Your task to perform on an android device: Add rayovac triple a to the cart on target, then select checkout. Image 0: 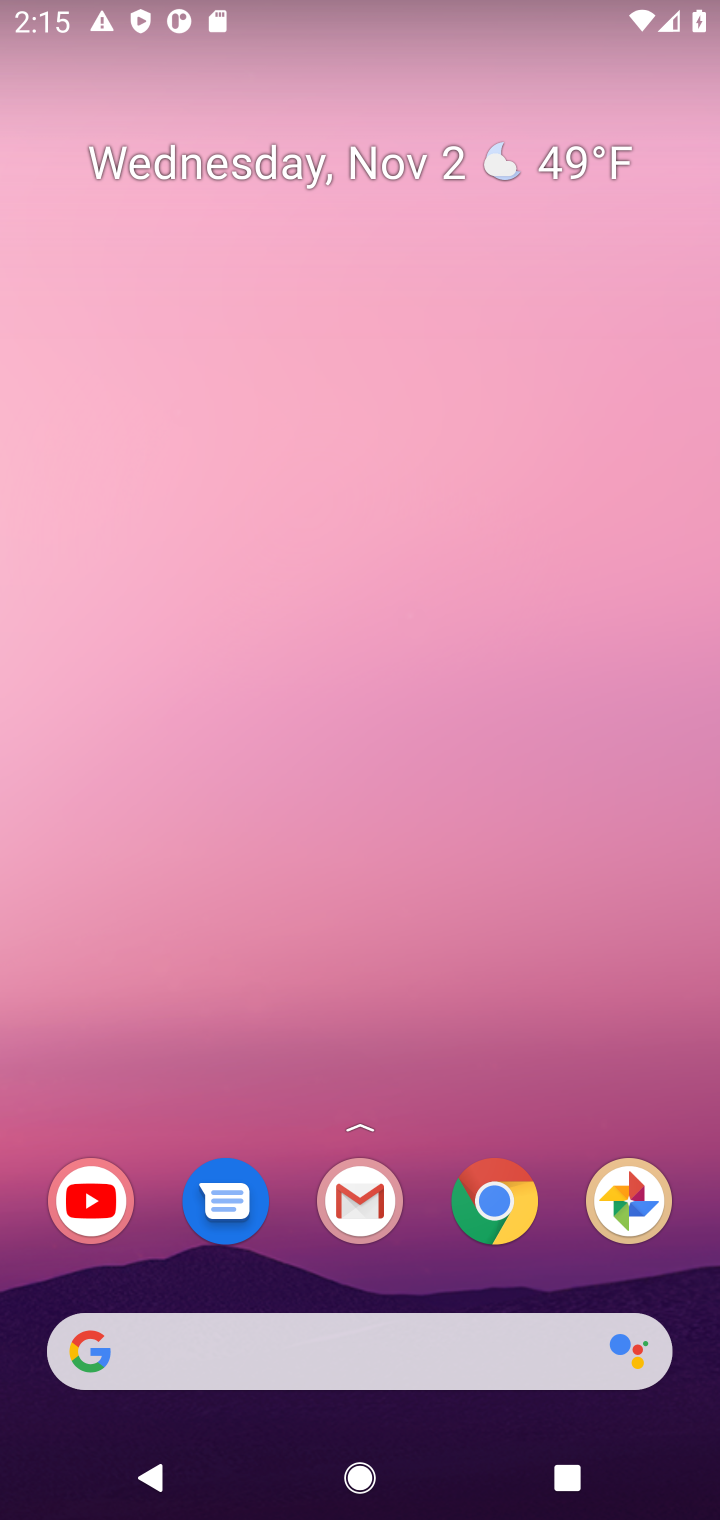
Step 0: click (504, 1185)
Your task to perform on an android device: Add rayovac triple a to the cart on target, then select checkout. Image 1: 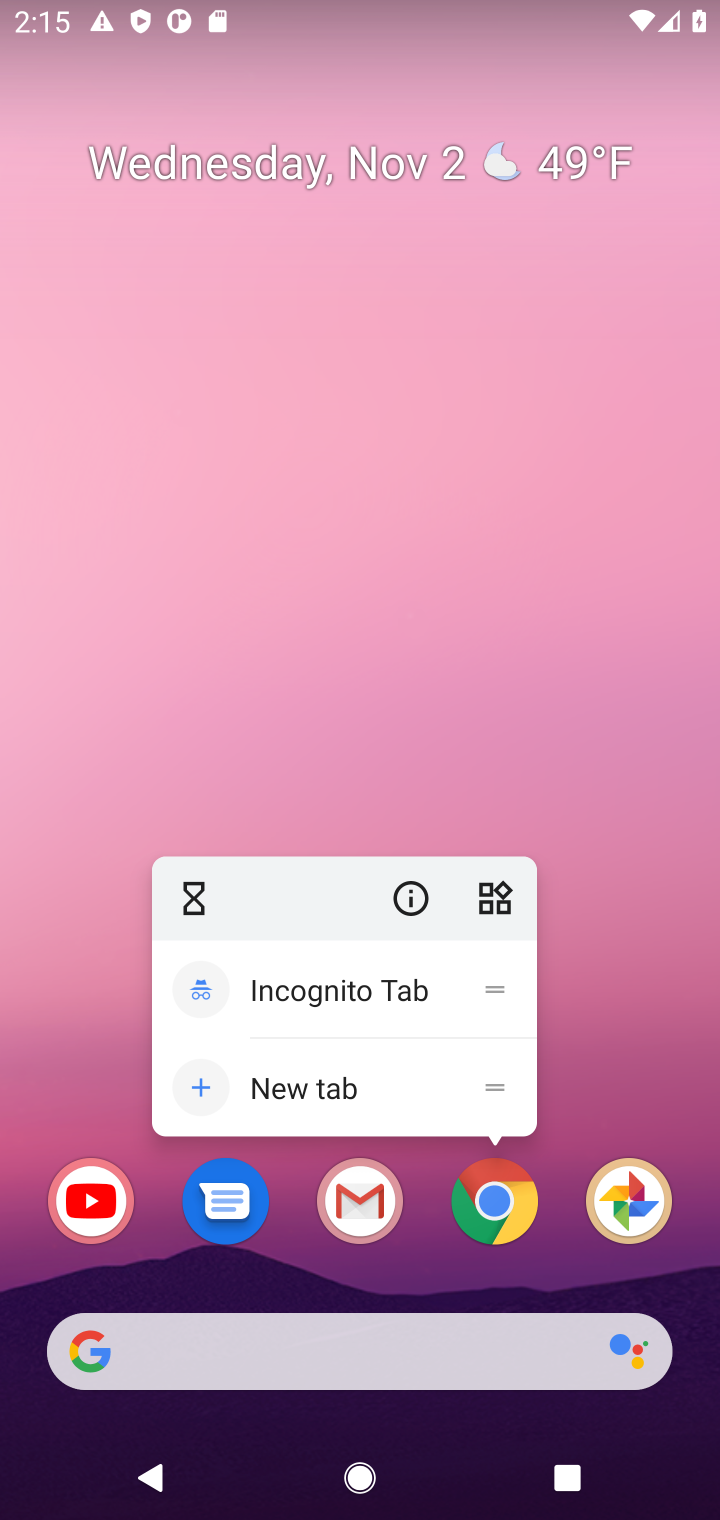
Step 1: click (496, 1205)
Your task to perform on an android device: Add rayovac triple a to the cart on target, then select checkout. Image 2: 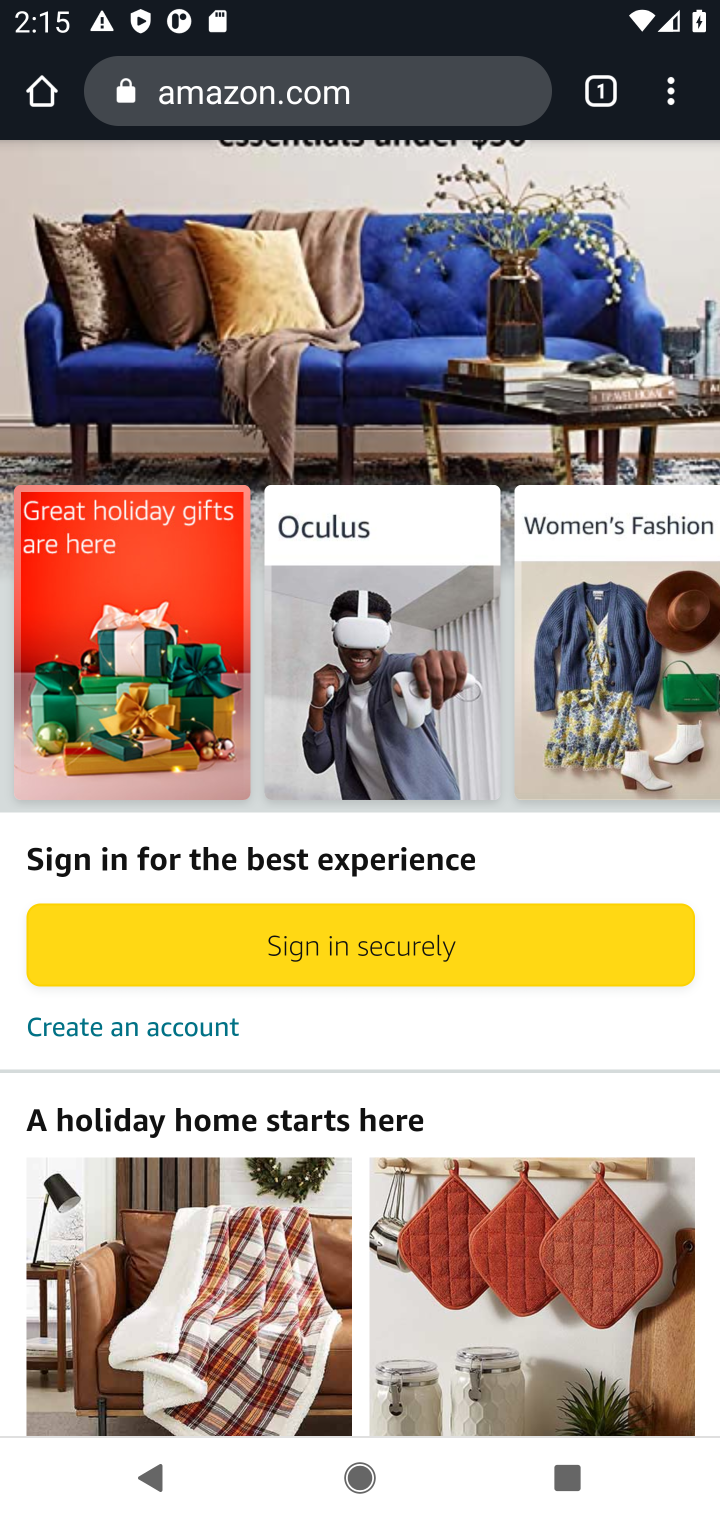
Step 2: click (436, 113)
Your task to perform on an android device: Add rayovac triple a to the cart on target, then select checkout. Image 3: 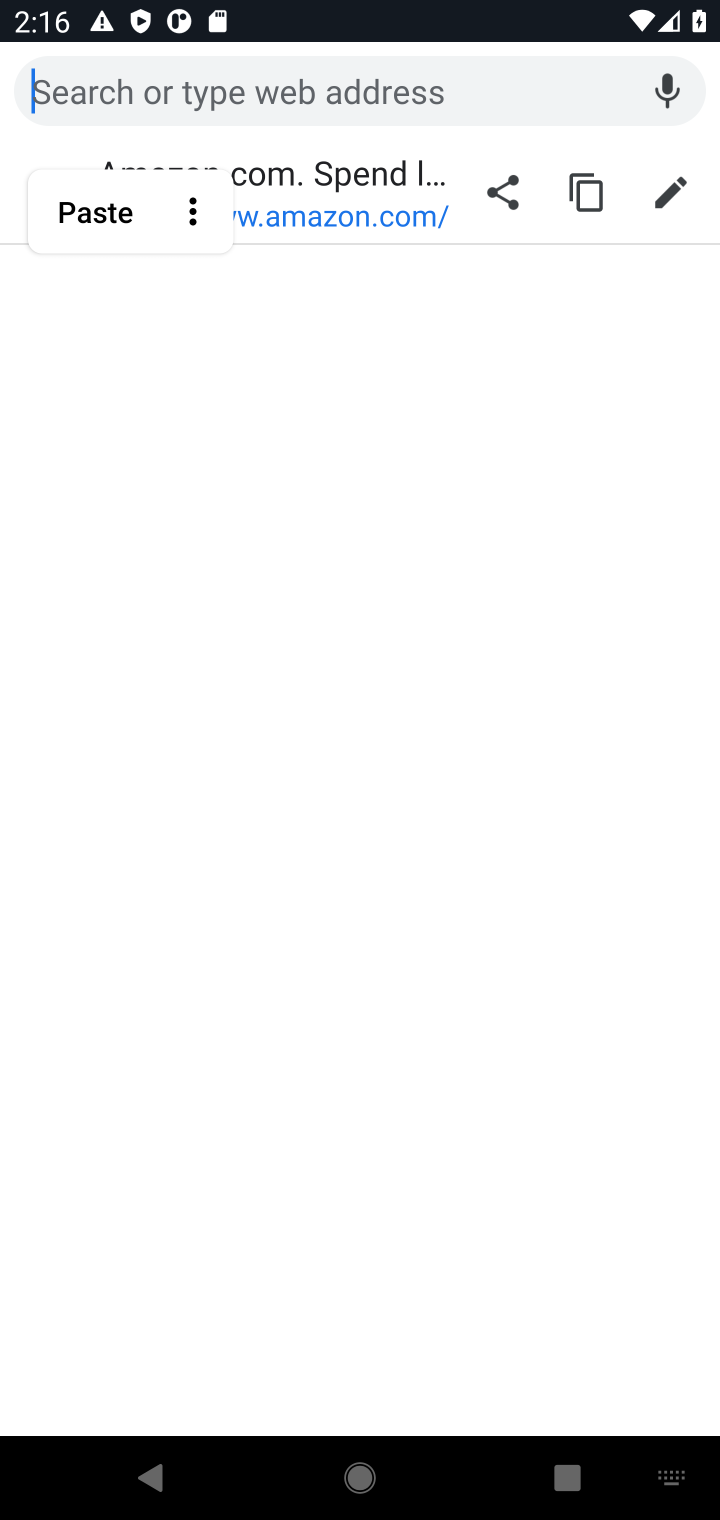
Step 3: type "target"
Your task to perform on an android device: Add rayovac triple a to the cart on target, then select checkout. Image 4: 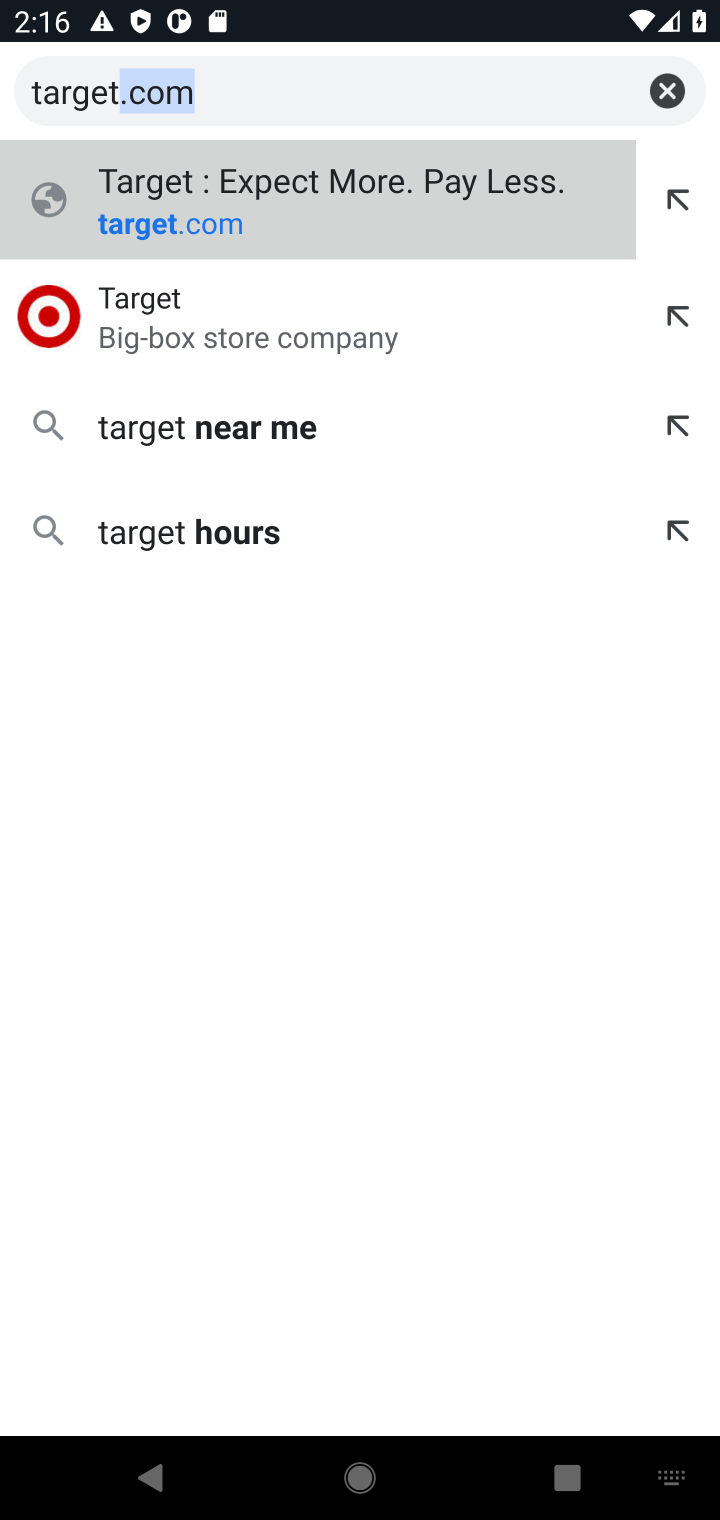
Step 4: press enter
Your task to perform on an android device: Add rayovac triple a to the cart on target, then select checkout. Image 5: 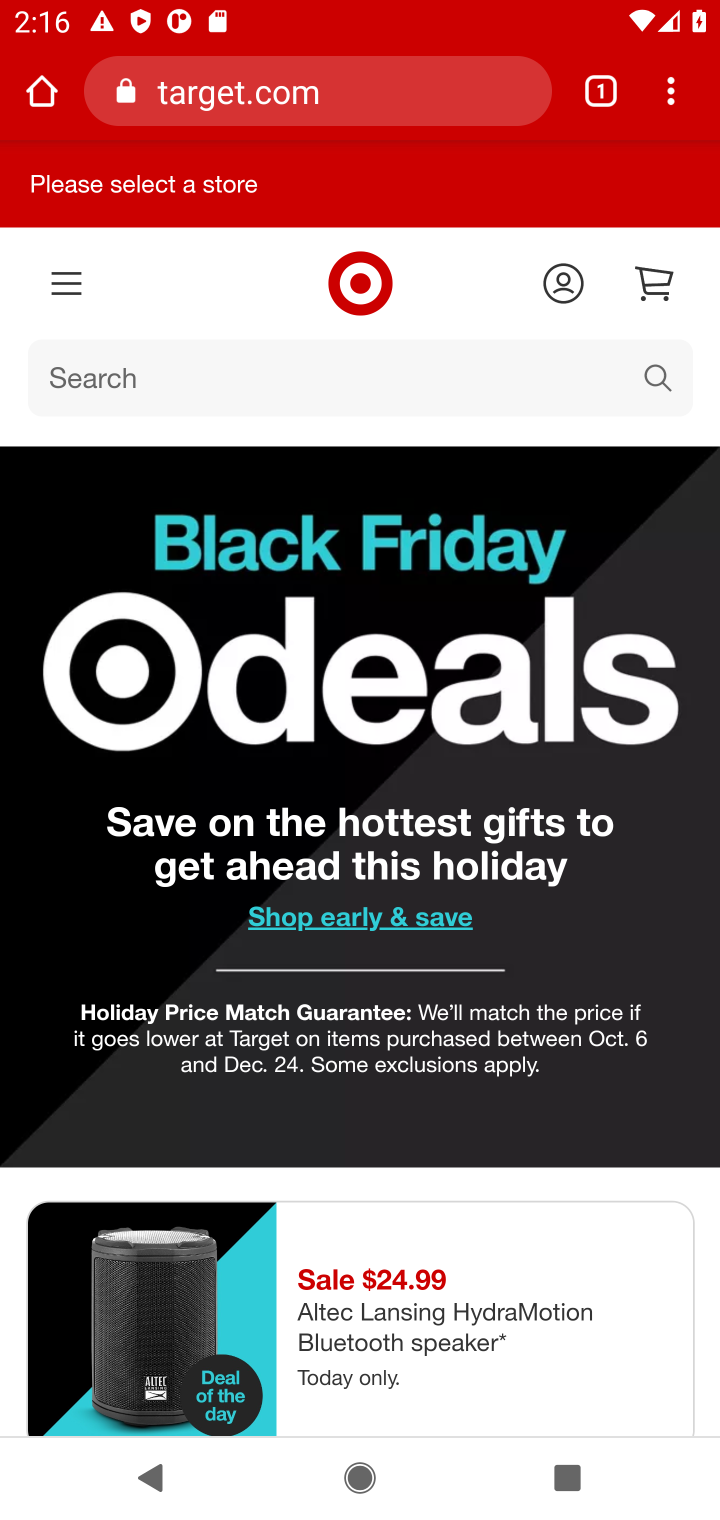
Step 5: click (263, 381)
Your task to perform on an android device: Add rayovac triple a to the cart on target, then select checkout. Image 6: 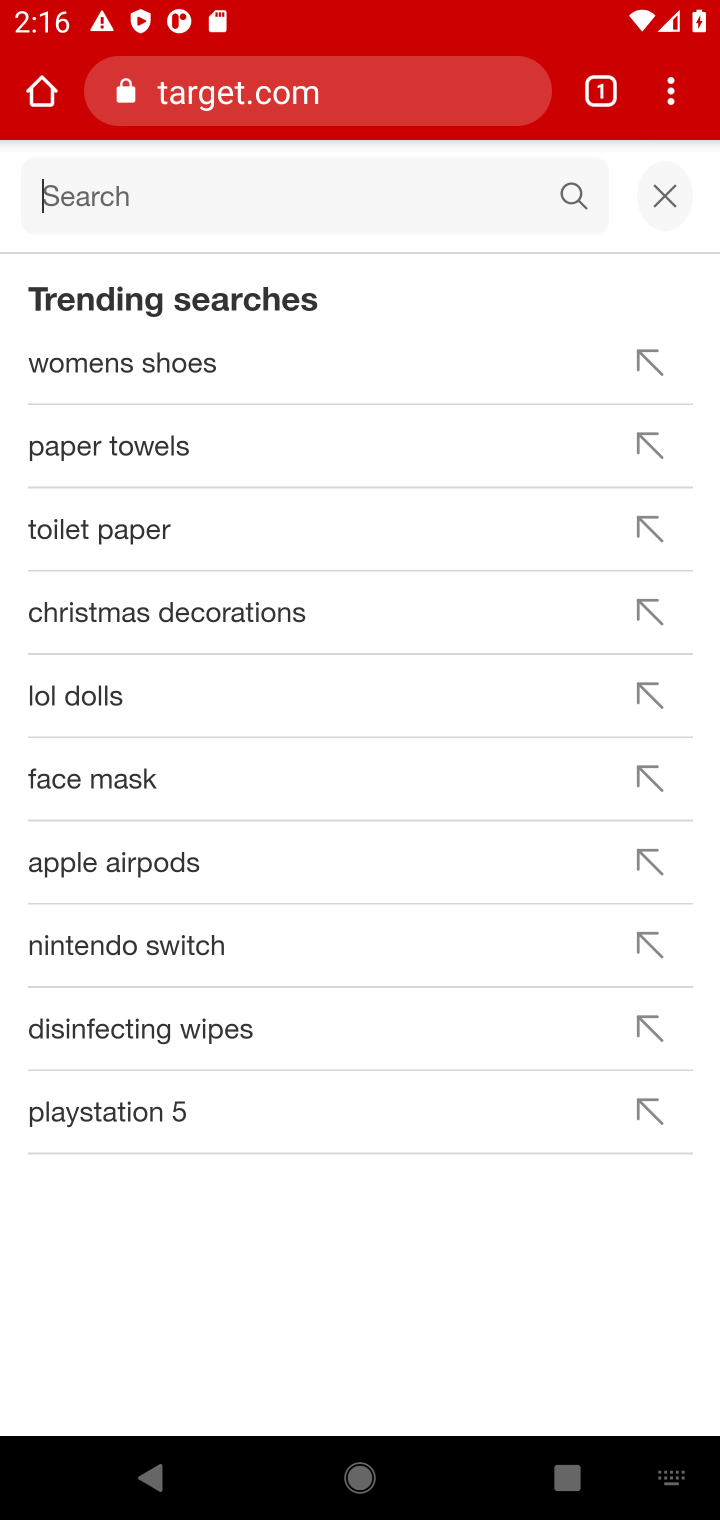
Step 6: click (95, 196)
Your task to perform on an android device: Add rayovac triple a to the cart on target, then select checkout. Image 7: 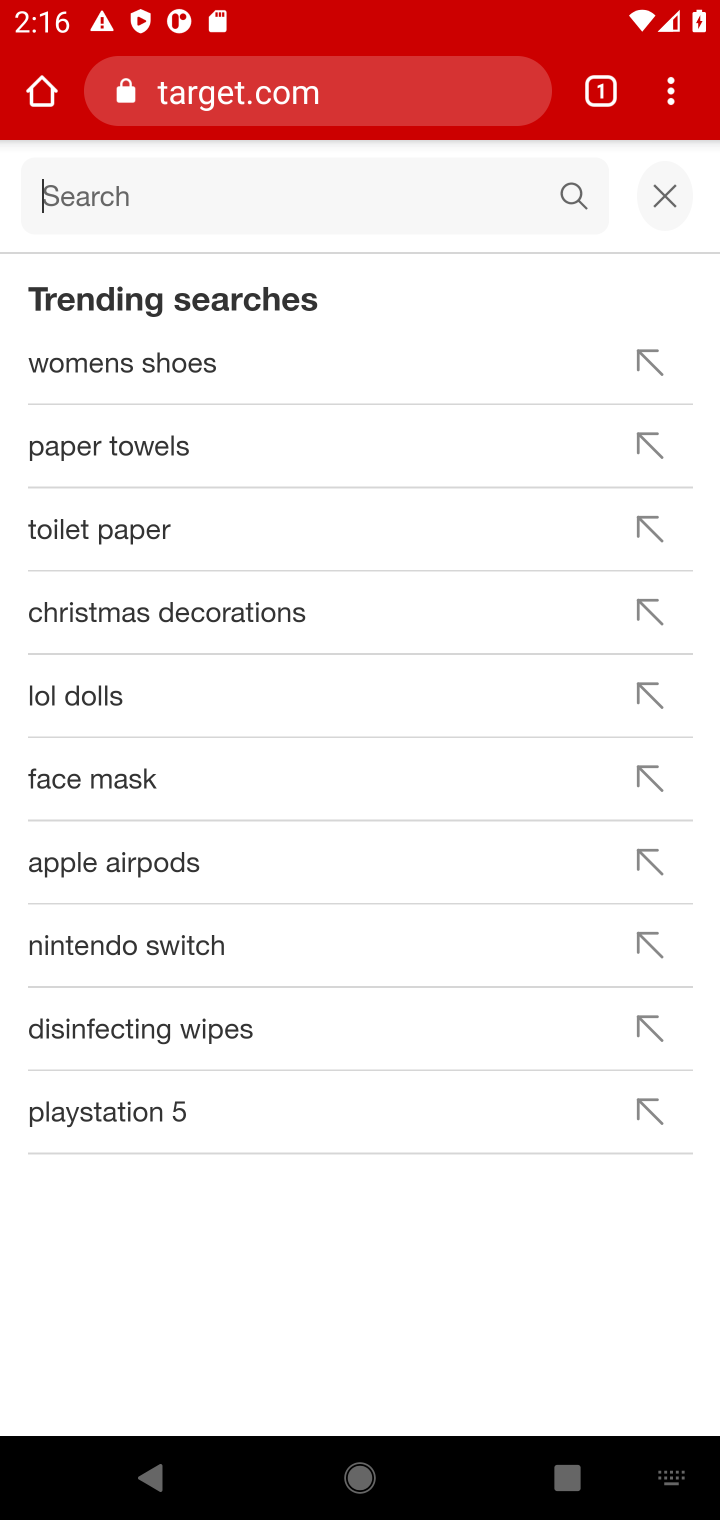
Step 7: type " rayovac triple "
Your task to perform on an android device: Add rayovac triple a to the cart on target, then select checkout. Image 8: 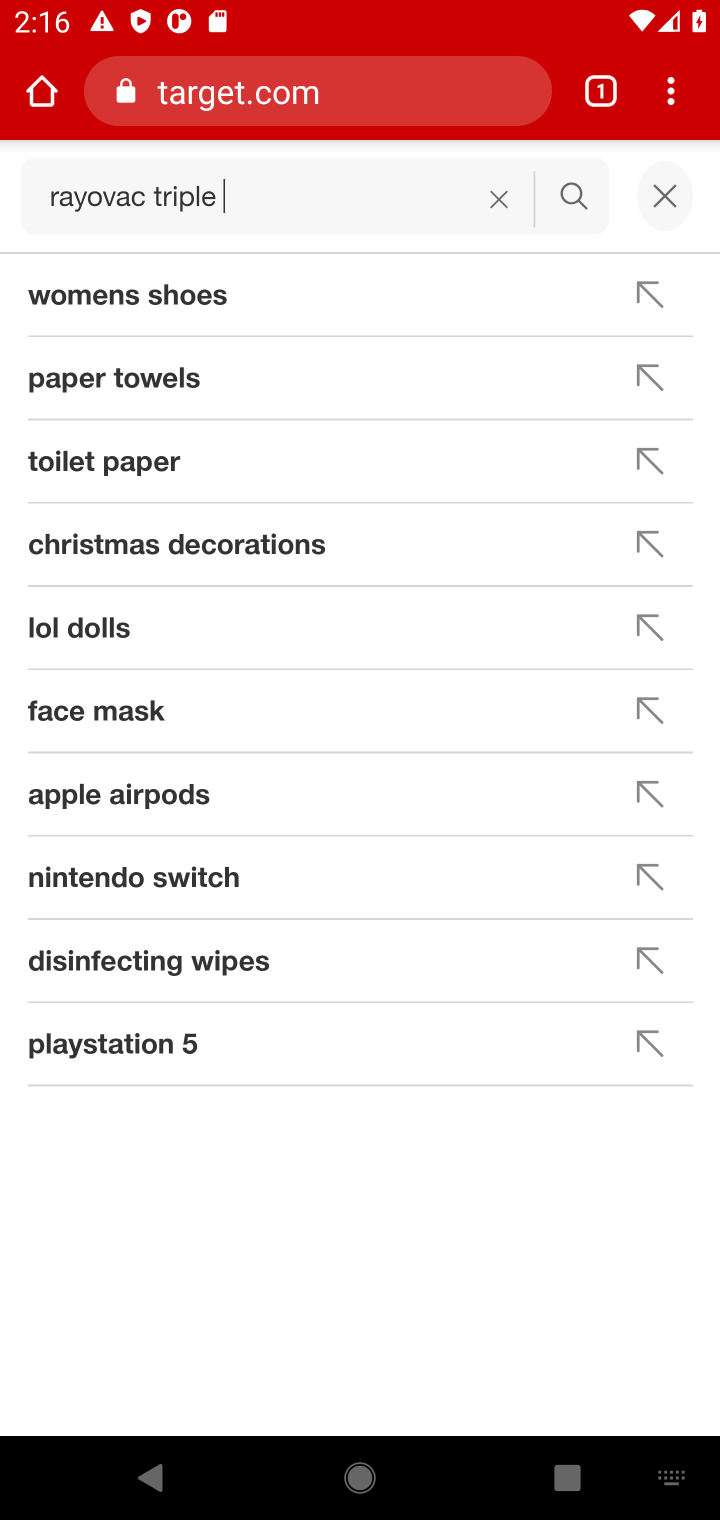
Step 8: press enter
Your task to perform on an android device: Add rayovac triple a to the cart on target, then select checkout. Image 9: 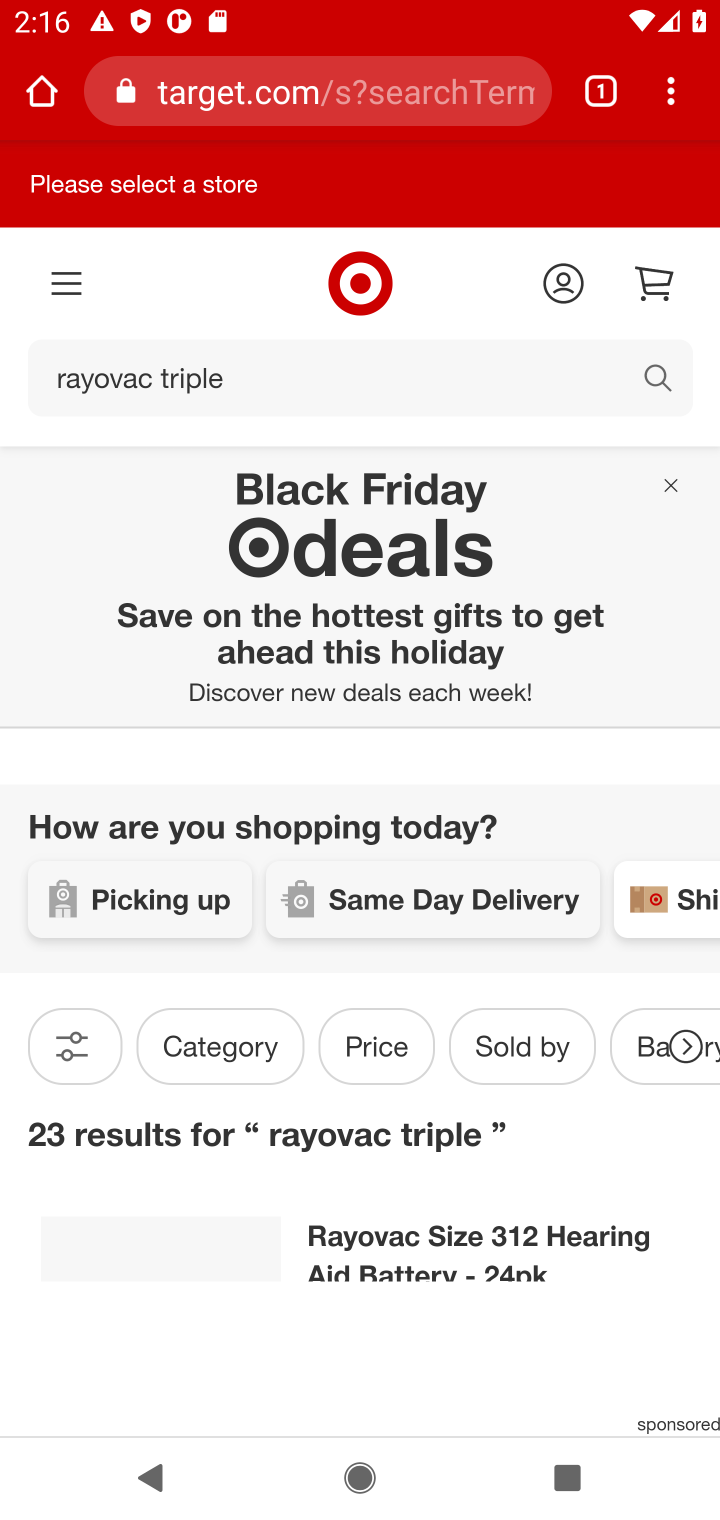
Step 9: drag from (443, 1310) to (518, 476)
Your task to perform on an android device: Add rayovac triple a to the cart on target, then select checkout. Image 10: 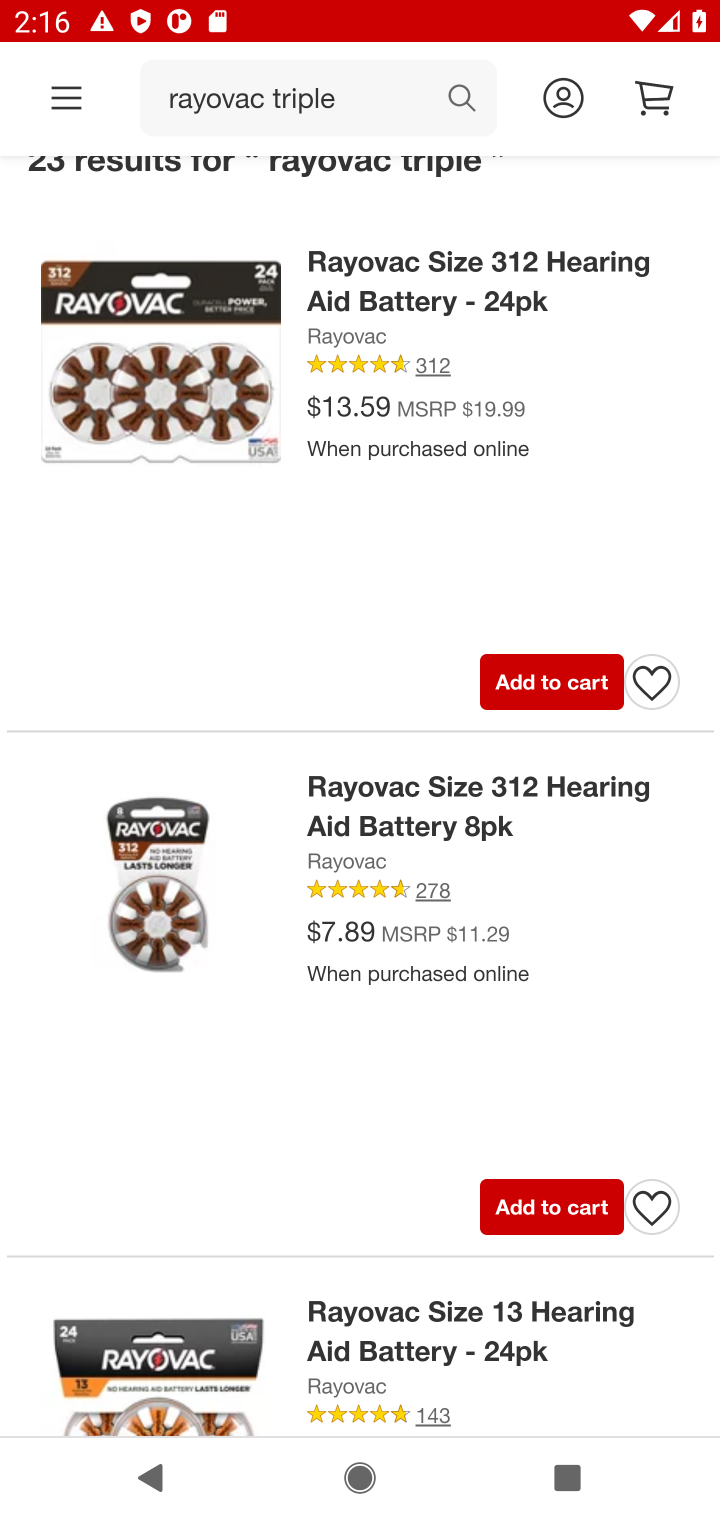
Step 10: drag from (361, 508) to (361, 818)
Your task to perform on an android device: Add rayovac triple a to the cart on target, then select checkout. Image 11: 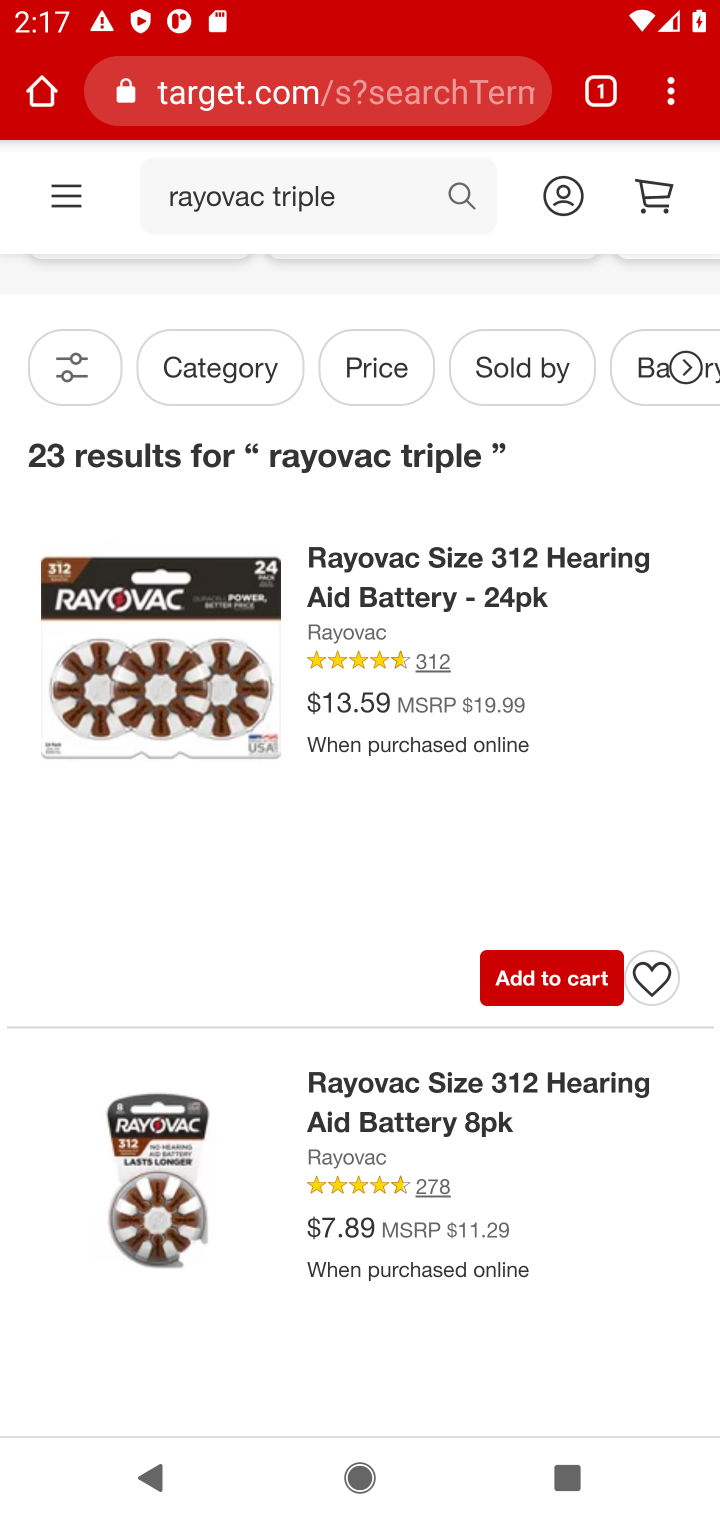
Step 11: click (358, 656)
Your task to perform on an android device: Add rayovac triple a to the cart on target, then select checkout. Image 12: 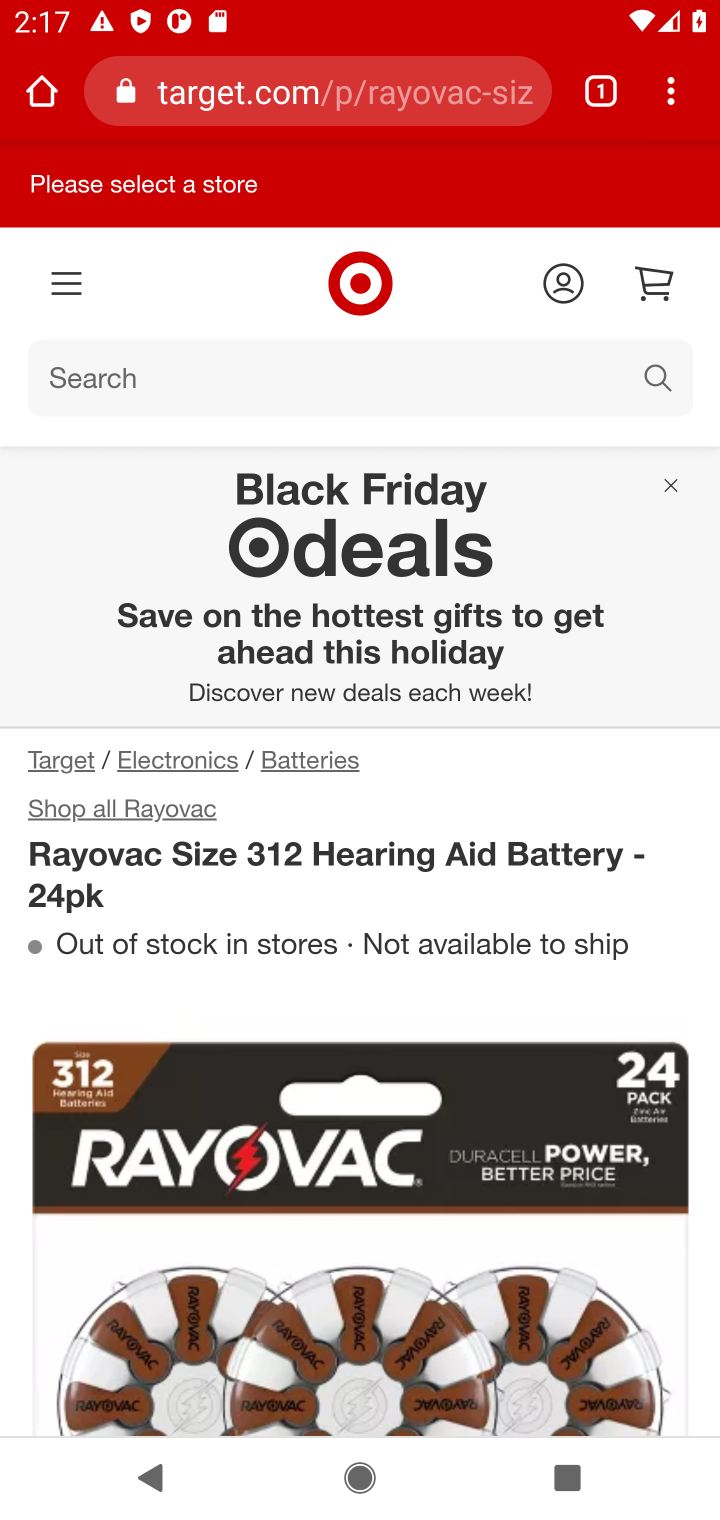
Step 12: drag from (362, 1300) to (530, 252)
Your task to perform on an android device: Add rayovac triple a to the cart on target, then select checkout. Image 13: 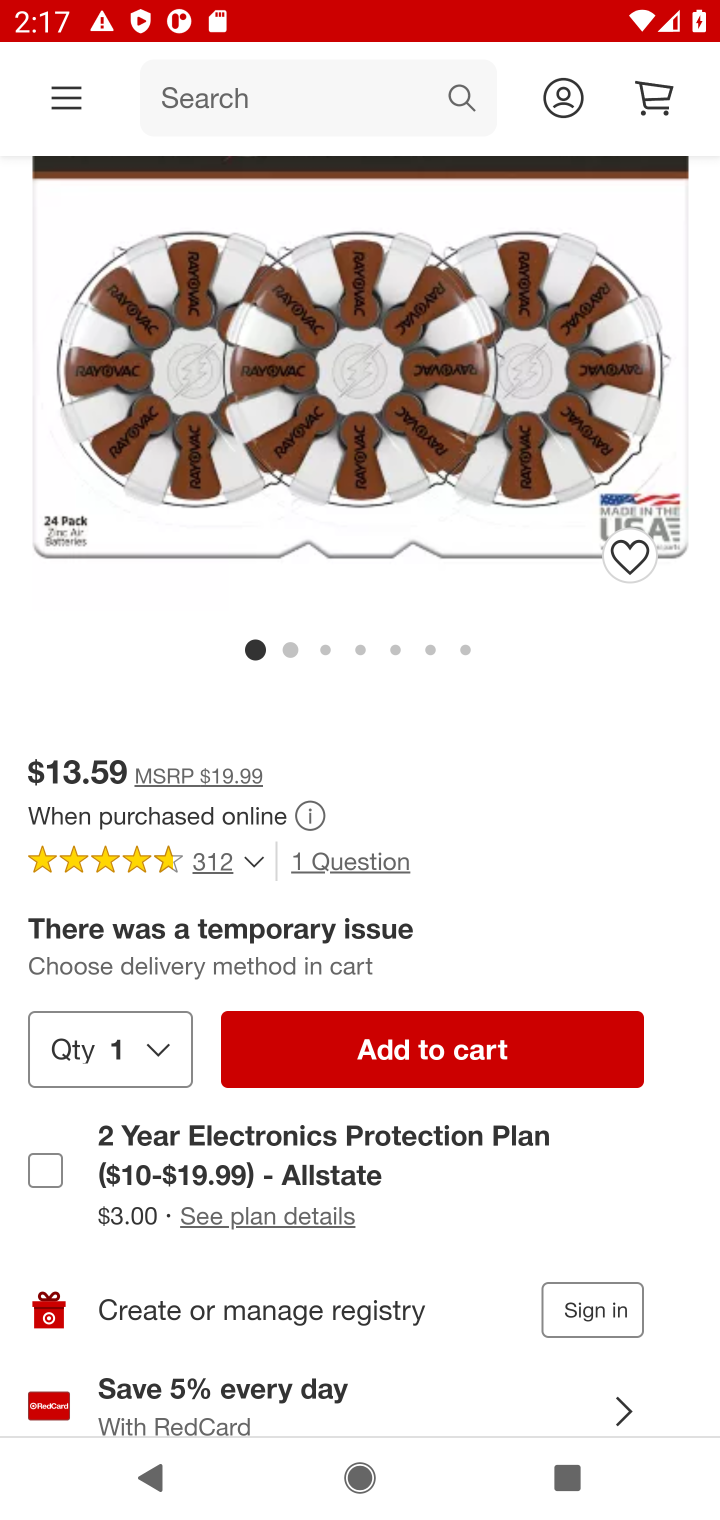
Step 13: click (415, 1059)
Your task to perform on an android device: Add rayovac triple a to the cart on target, then select checkout. Image 14: 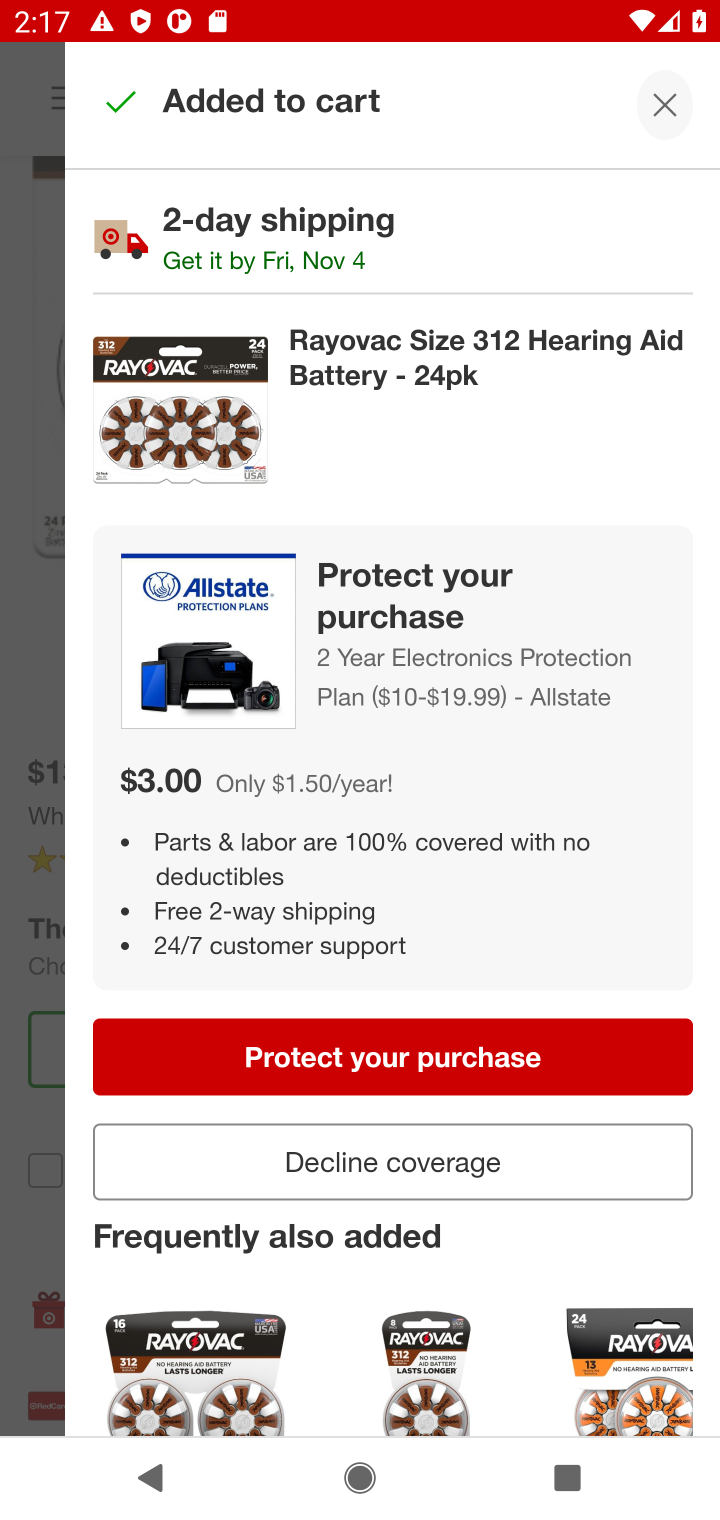
Step 14: click (459, 1162)
Your task to perform on an android device: Add rayovac triple a to the cart on target, then select checkout. Image 15: 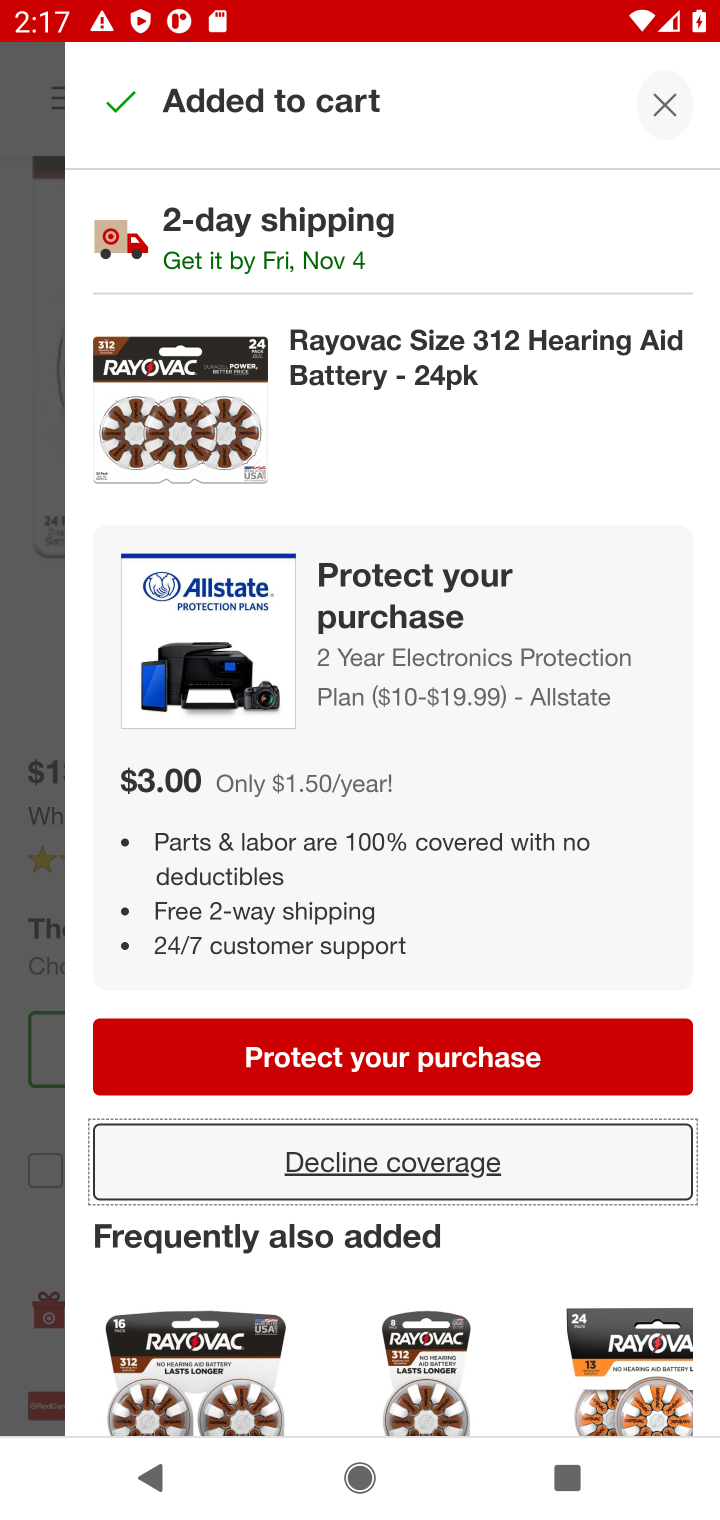
Step 15: click (343, 1152)
Your task to perform on an android device: Add rayovac triple a to the cart on target, then select checkout. Image 16: 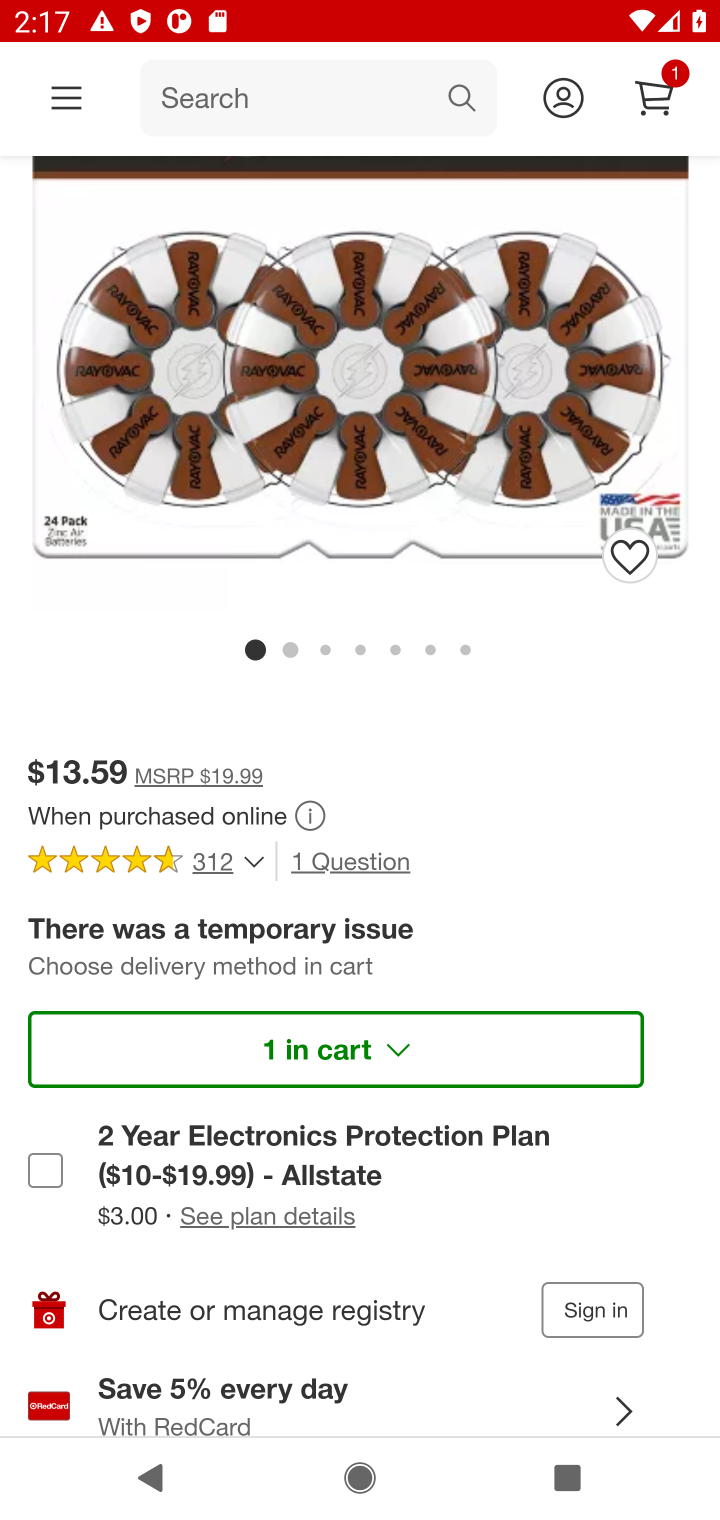
Step 16: click (330, 1041)
Your task to perform on an android device: Add rayovac triple a to the cart on target, then select checkout. Image 17: 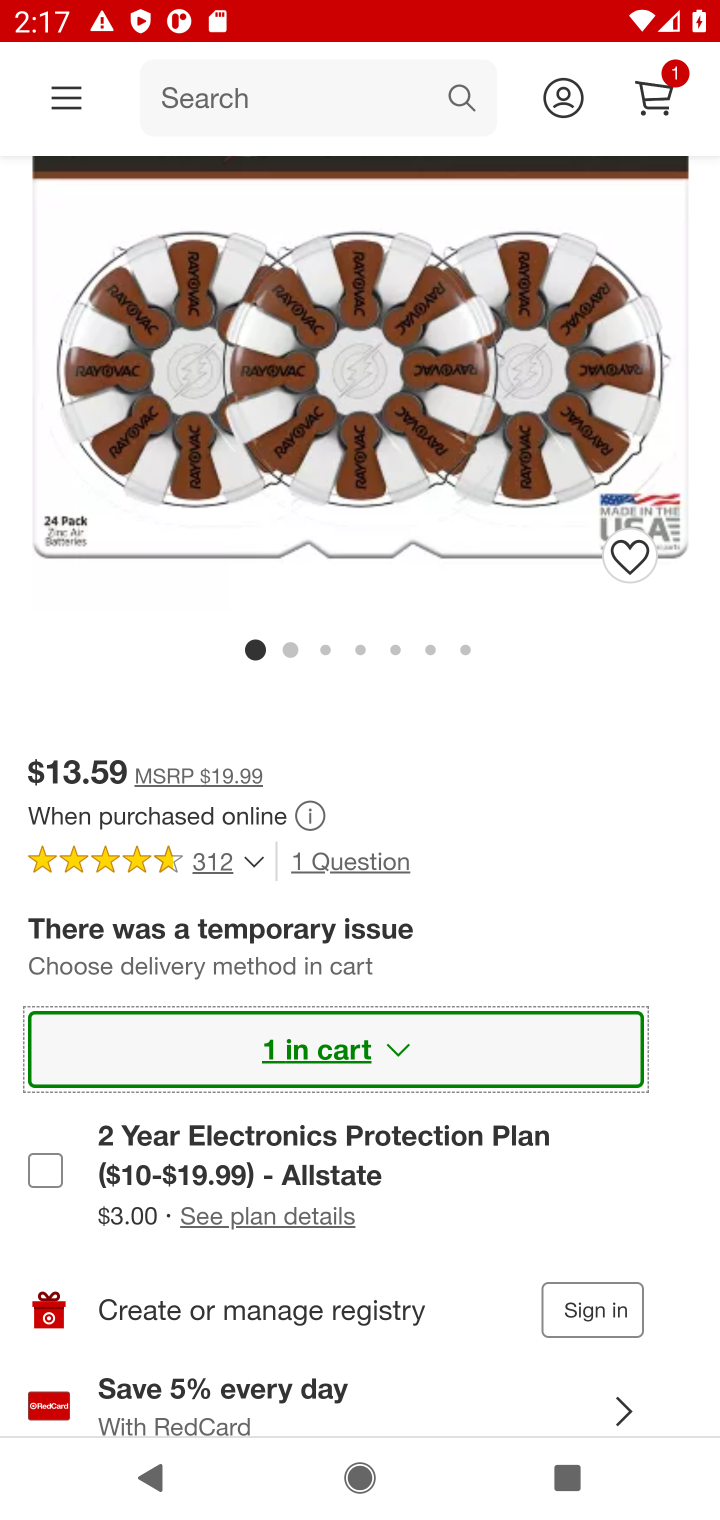
Step 17: click (312, 1056)
Your task to perform on an android device: Add rayovac triple a to the cart on target, then select checkout. Image 18: 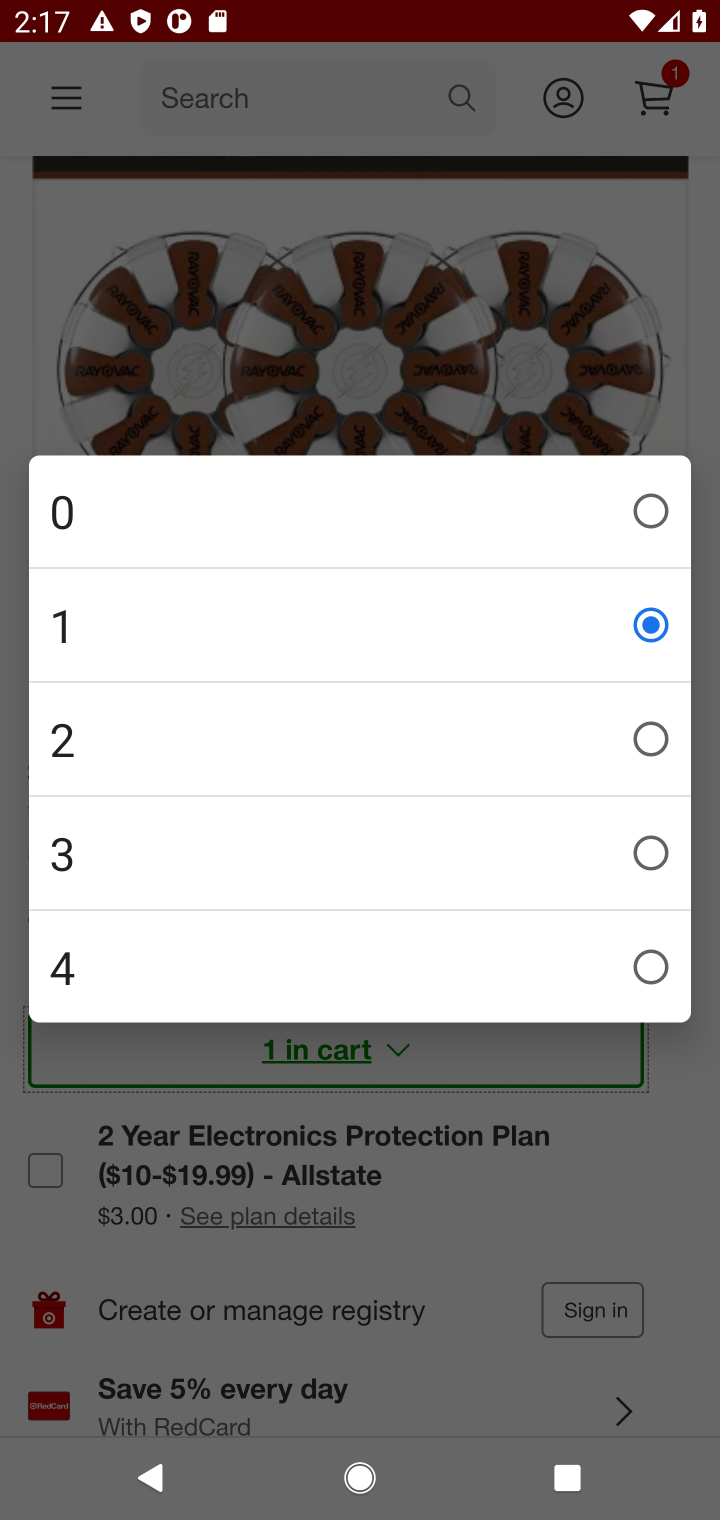
Step 18: click (673, 63)
Your task to perform on an android device: Add rayovac triple a to the cart on target, then select checkout. Image 19: 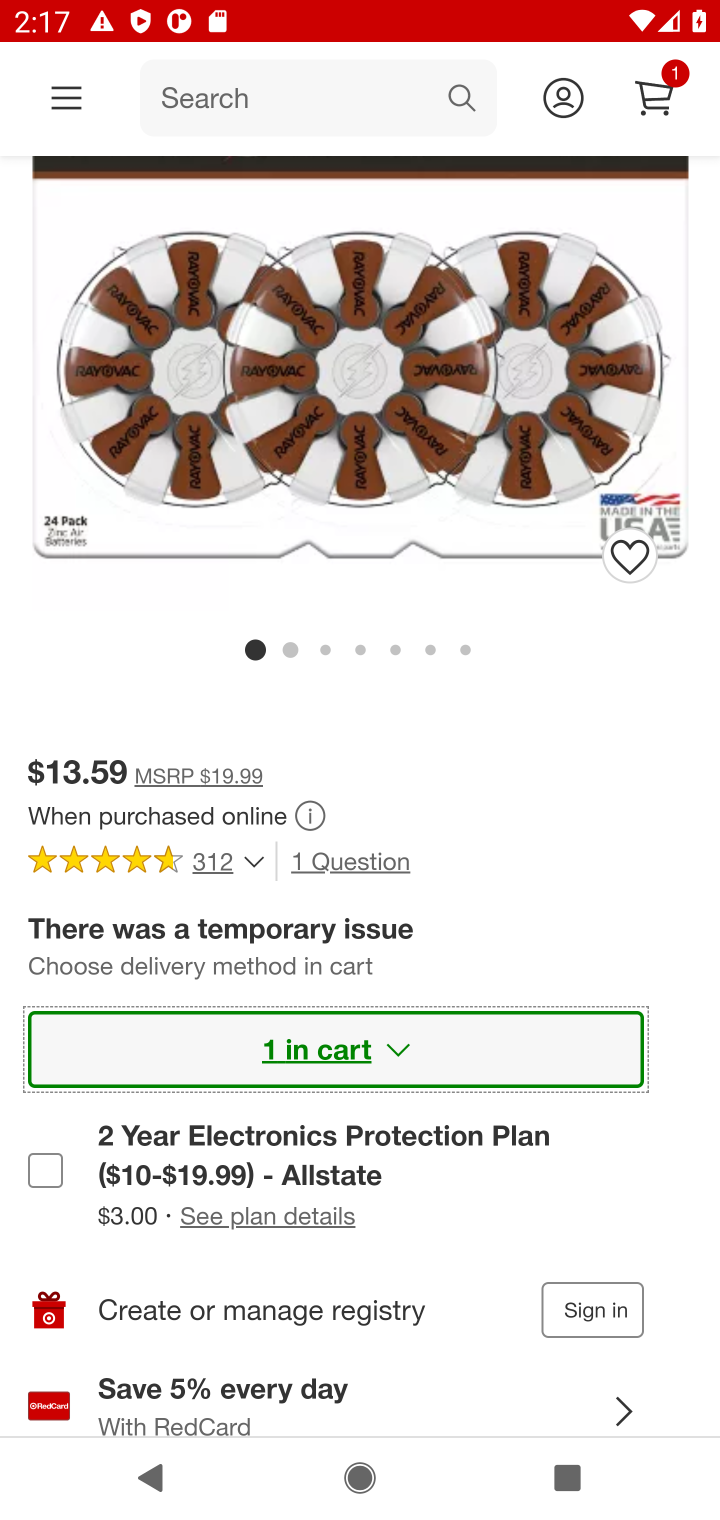
Step 19: click (673, 92)
Your task to perform on an android device: Add rayovac triple a to the cart on target, then select checkout. Image 20: 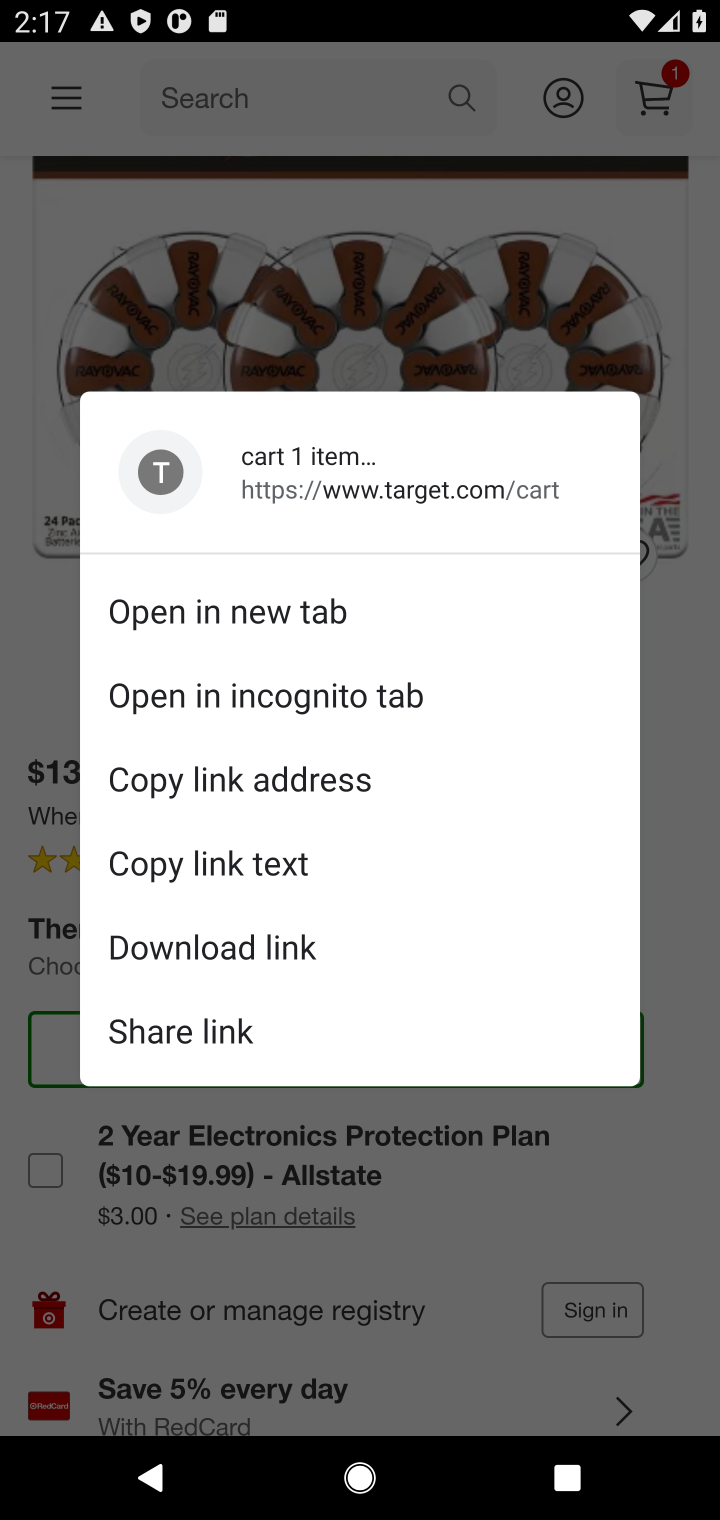
Step 20: click (654, 81)
Your task to perform on an android device: Add rayovac triple a to the cart on target, then select checkout. Image 21: 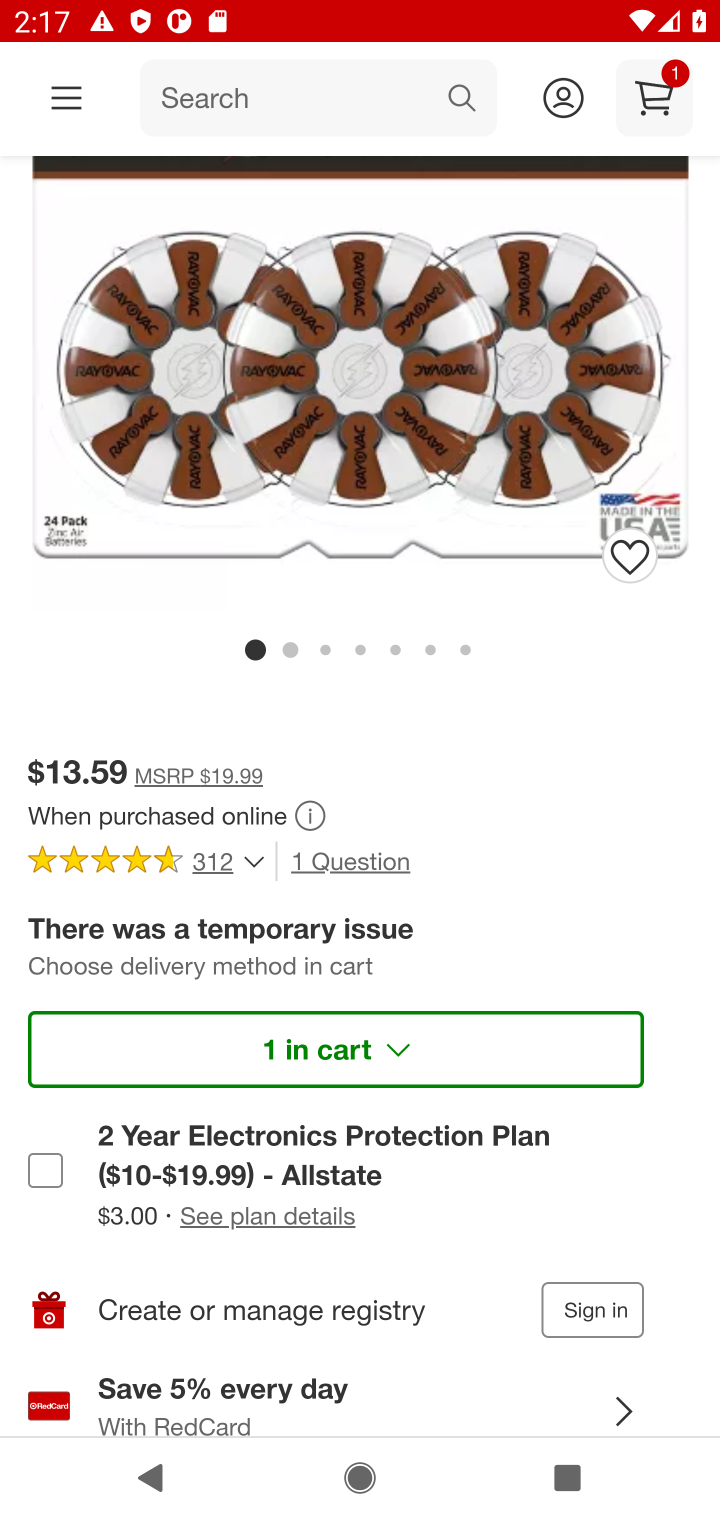
Step 21: click (654, 84)
Your task to perform on an android device: Add rayovac triple a to the cart on target, then select checkout. Image 22: 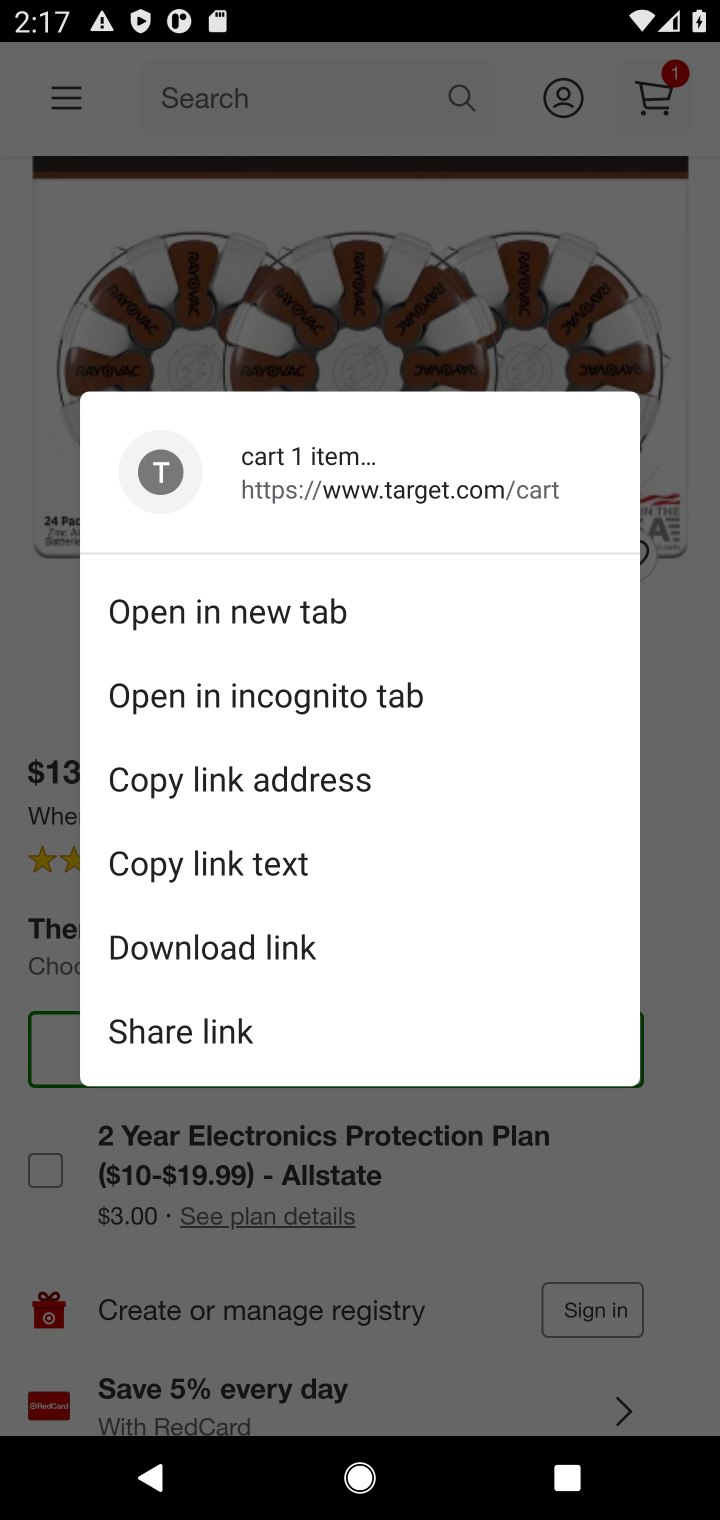
Step 22: click (671, 82)
Your task to perform on an android device: Add rayovac triple a to the cart on target, then select checkout. Image 23: 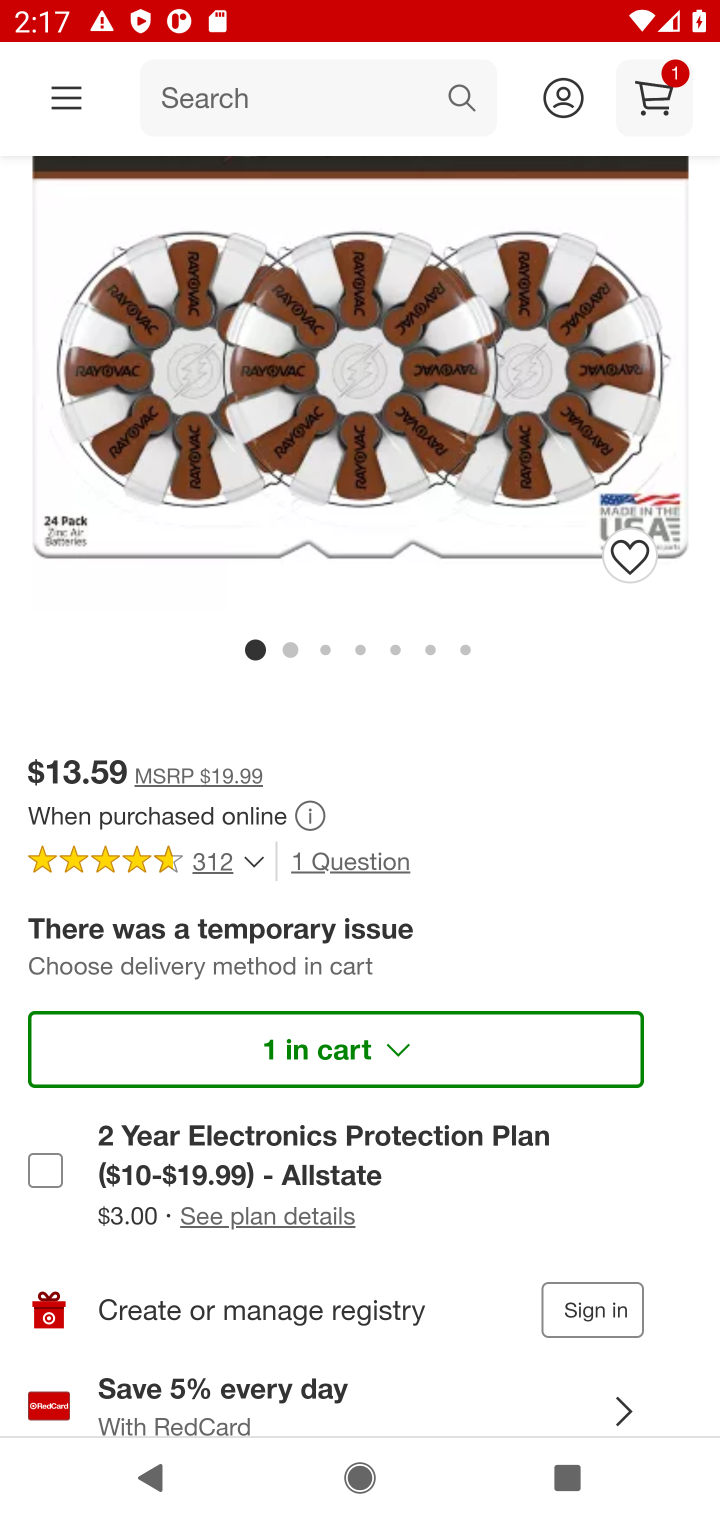
Step 23: click (654, 86)
Your task to perform on an android device: Add rayovac triple a to the cart on target, then select checkout. Image 24: 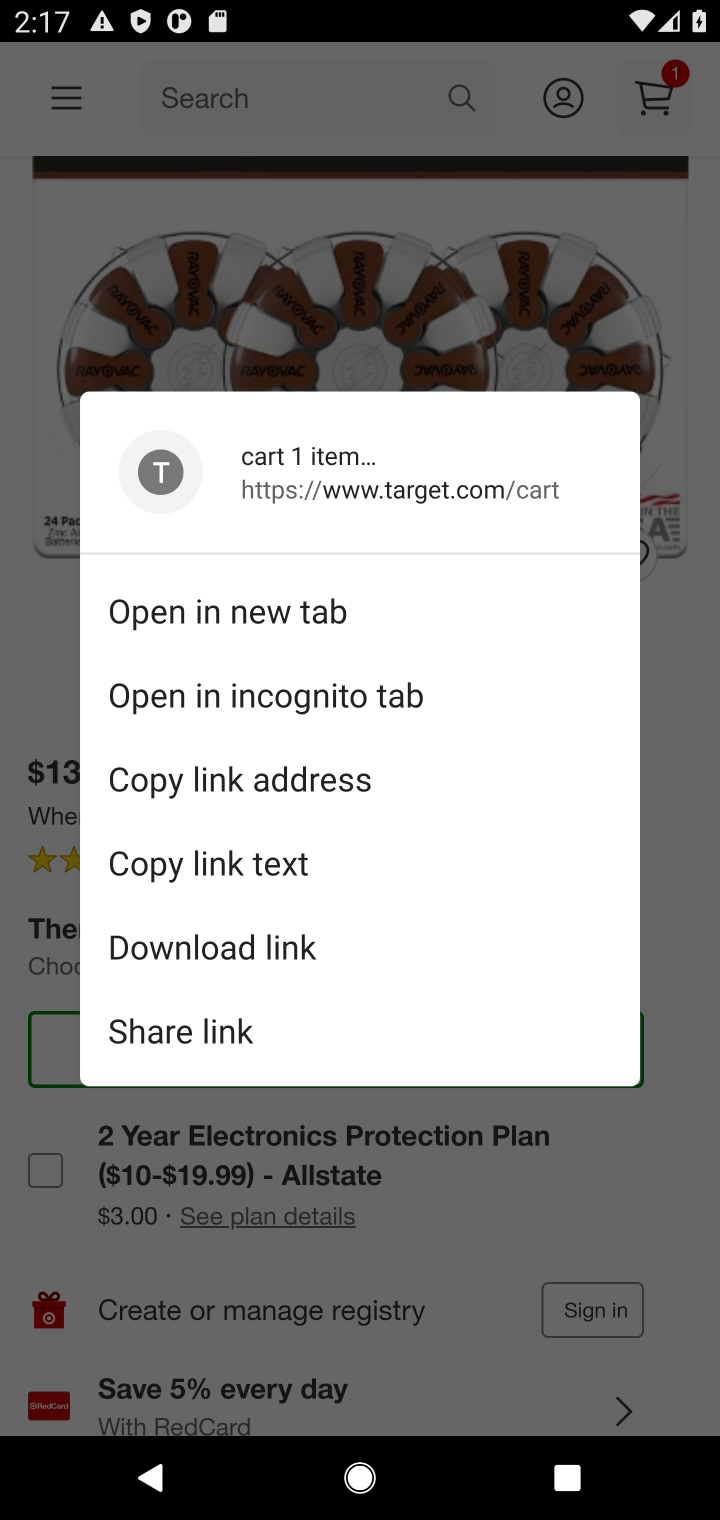
Step 24: click (668, 89)
Your task to perform on an android device: Add rayovac triple a to the cart on target, then select checkout. Image 25: 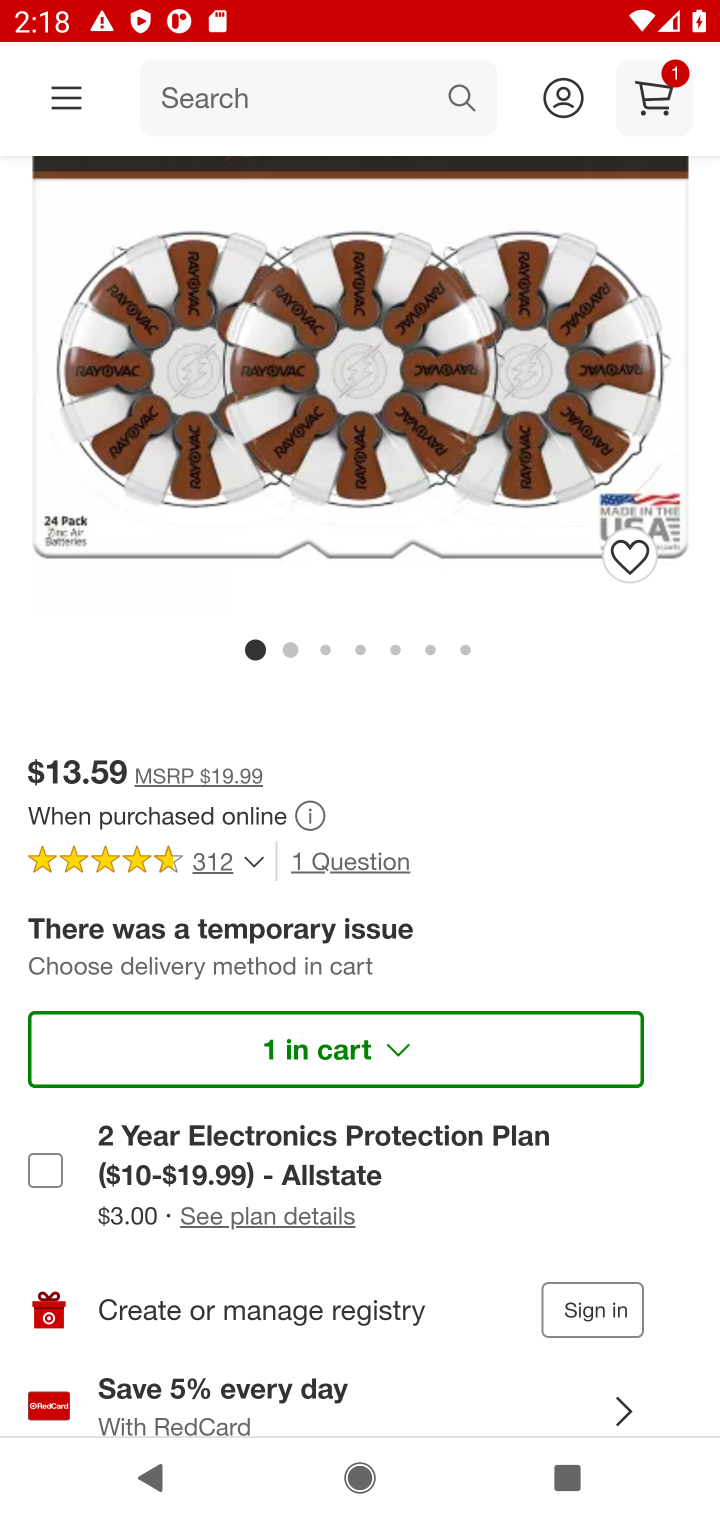
Step 25: click (656, 87)
Your task to perform on an android device: Add rayovac triple a to the cart on target, then select checkout. Image 26: 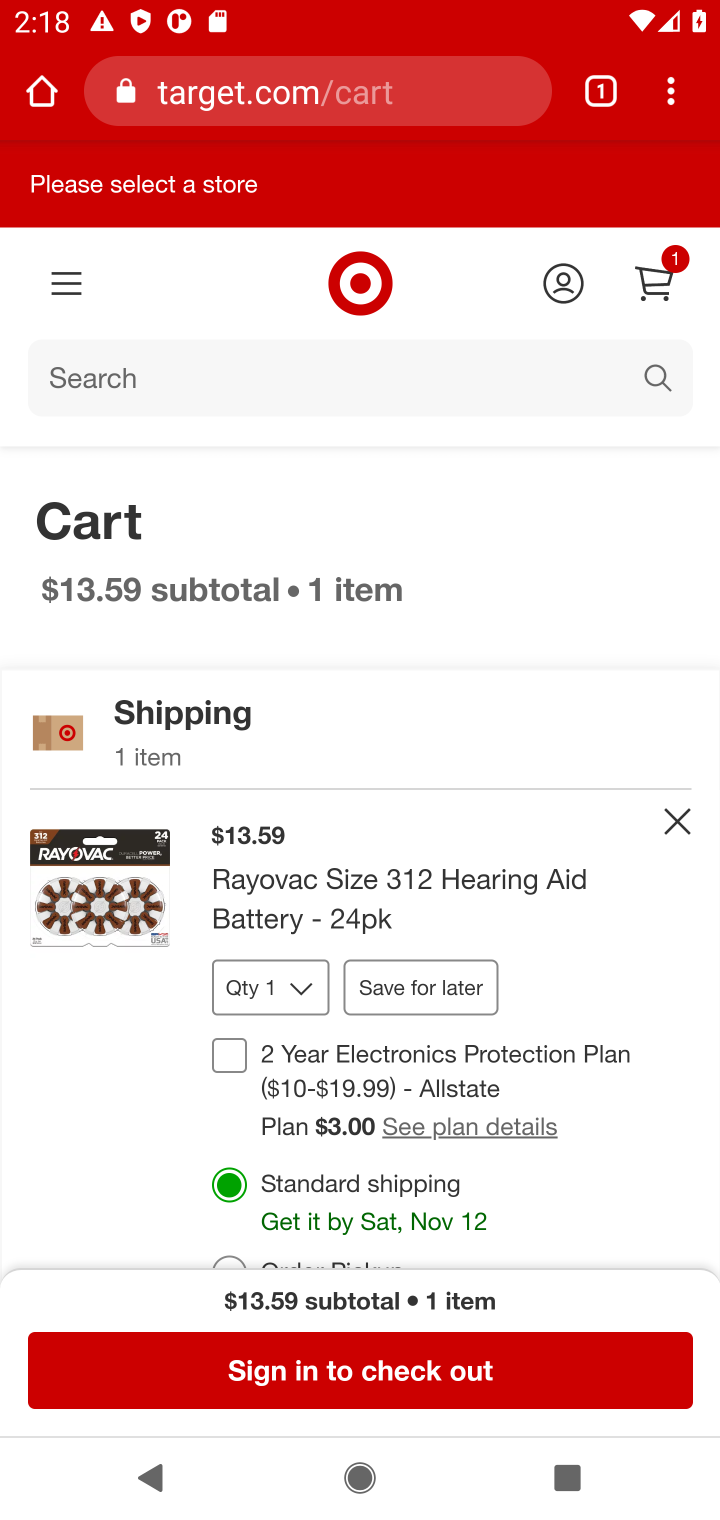
Step 26: click (385, 1378)
Your task to perform on an android device: Add rayovac triple a to the cart on target, then select checkout. Image 27: 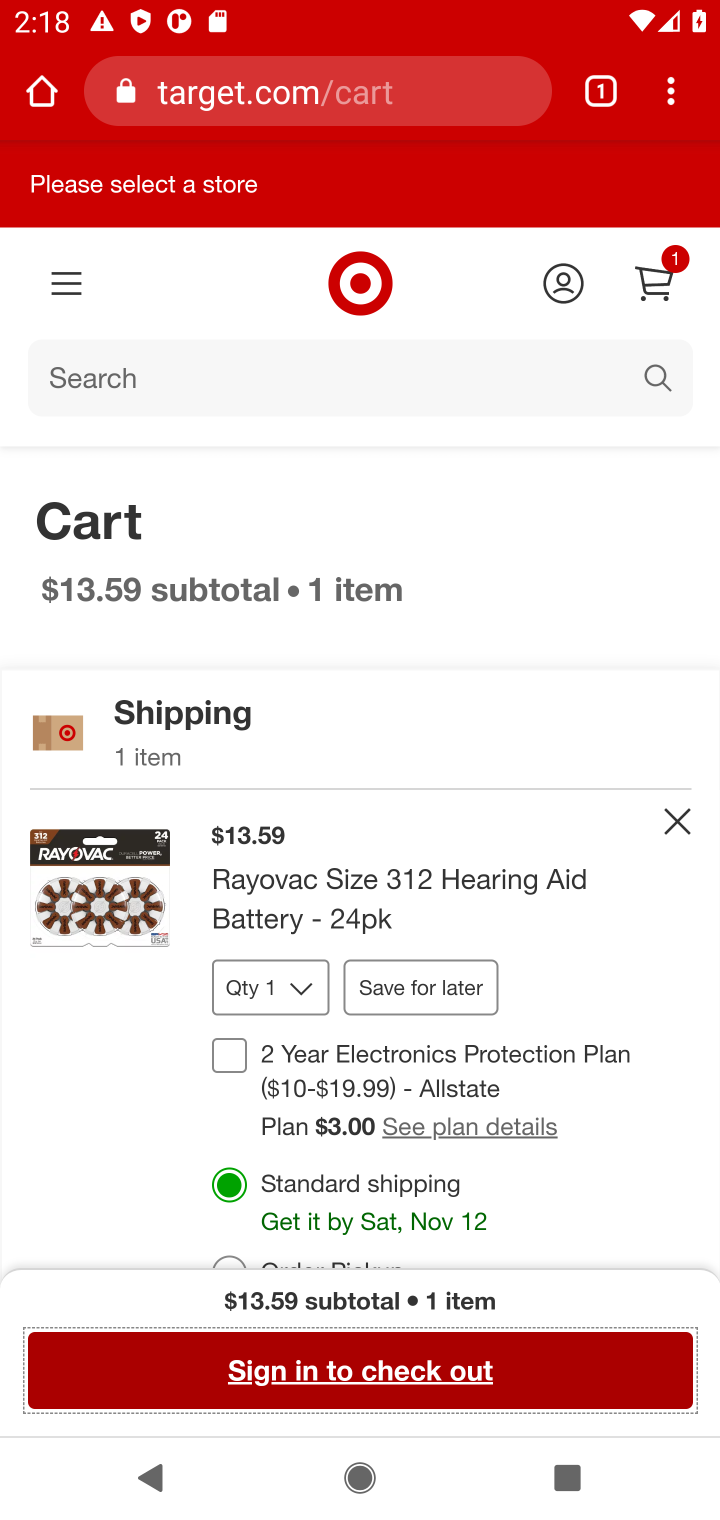
Step 27: click (419, 1372)
Your task to perform on an android device: Add rayovac triple a to the cart on target, then select checkout. Image 28: 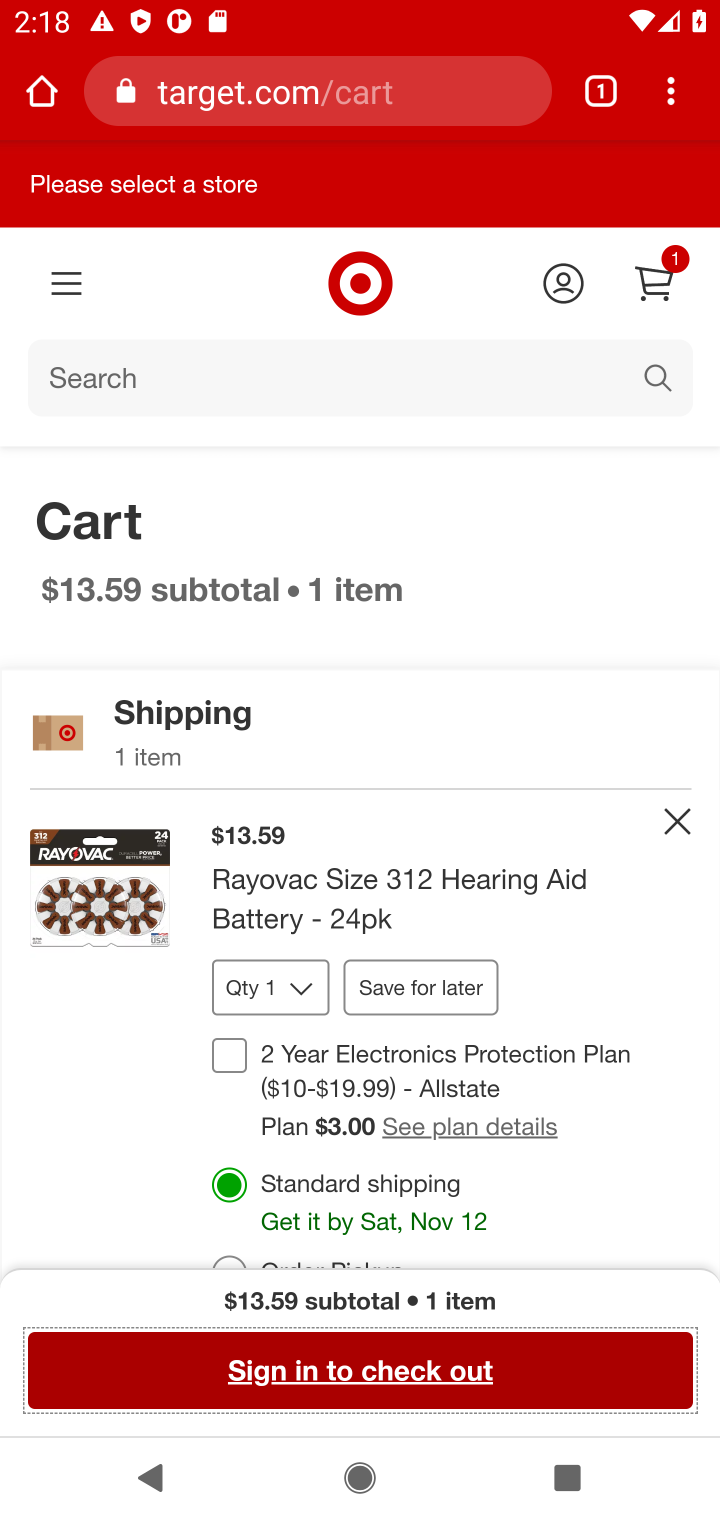
Step 28: click (406, 1360)
Your task to perform on an android device: Add rayovac triple a to the cart on target, then select checkout. Image 29: 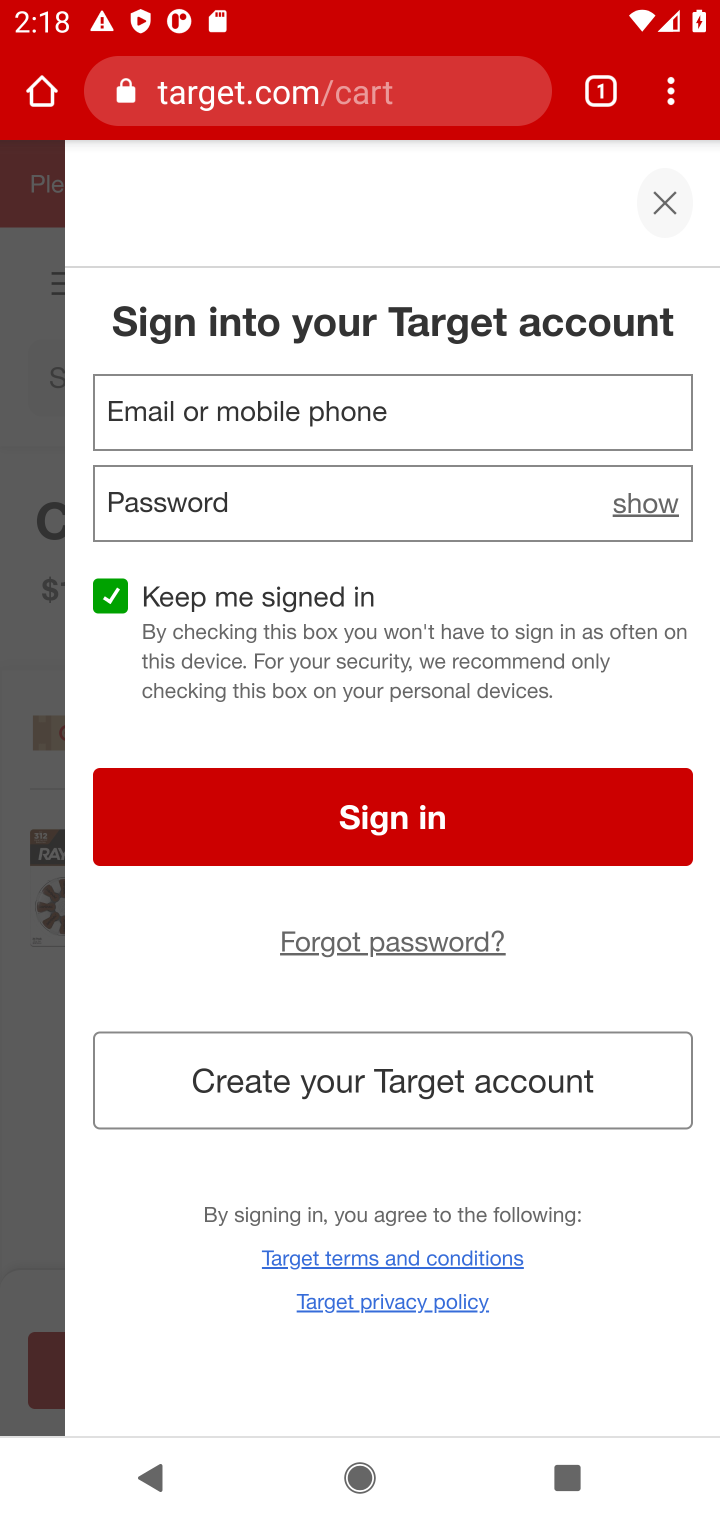
Step 29: task complete